Your task to perform on an android device: When is my next meeting? Image 0: 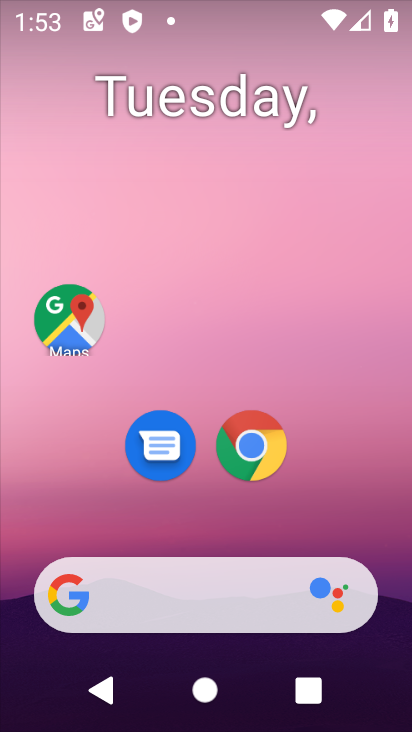
Step 0: click (250, 4)
Your task to perform on an android device: When is my next meeting? Image 1: 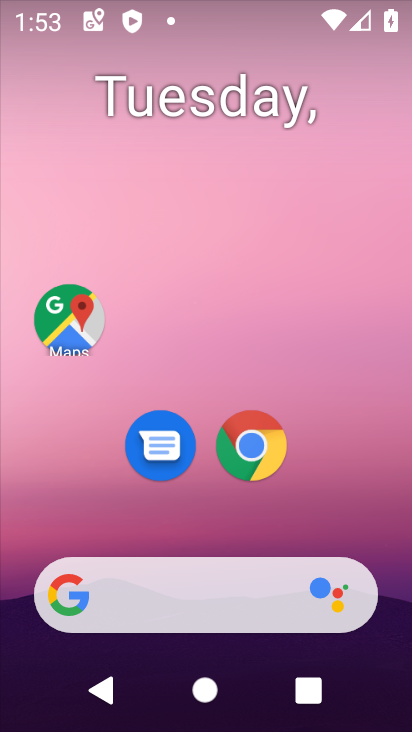
Step 1: drag from (361, 438) to (300, 20)
Your task to perform on an android device: When is my next meeting? Image 2: 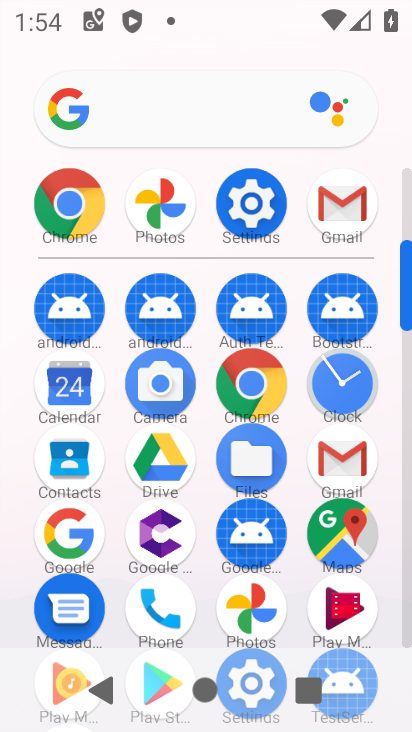
Step 2: click (64, 401)
Your task to perform on an android device: When is my next meeting? Image 3: 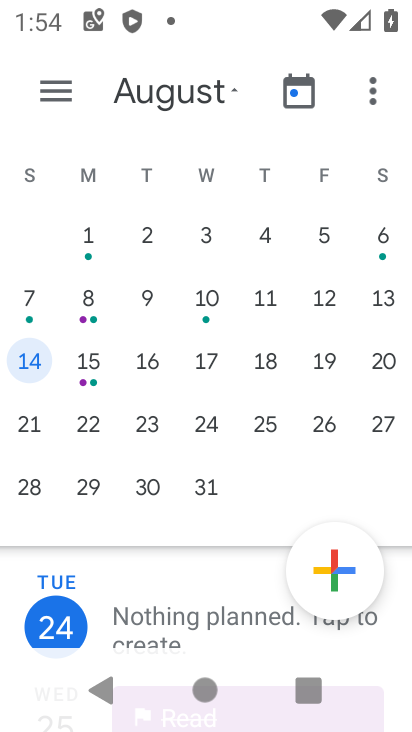
Step 3: click (98, 368)
Your task to perform on an android device: When is my next meeting? Image 4: 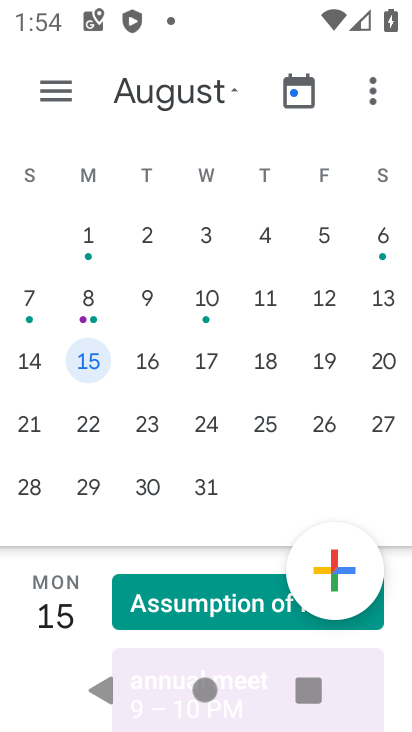
Step 4: task complete